Your task to perform on an android device: add a contact in the contacts app Image 0: 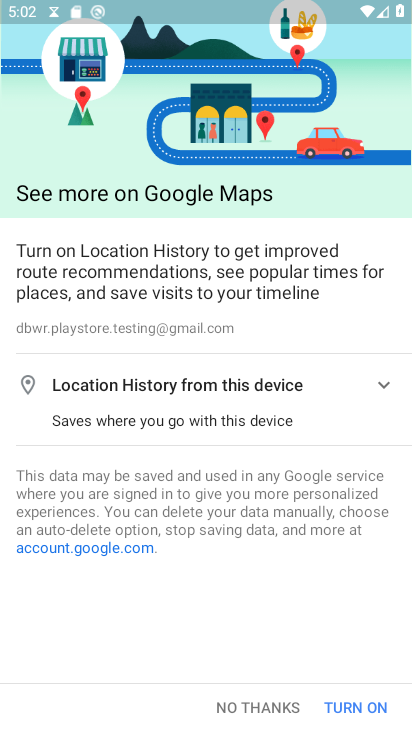
Step 0: press home button
Your task to perform on an android device: add a contact in the contacts app Image 1: 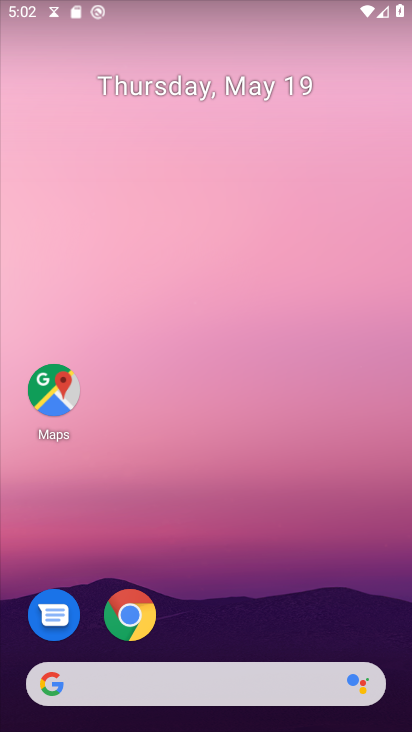
Step 1: drag from (358, 491) to (331, 22)
Your task to perform on an android device: add a contact in the contacts app Image 2: 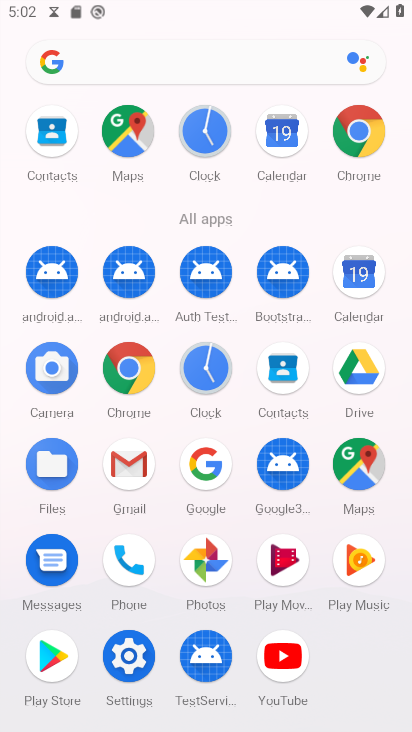
Step 2: click (282, 373)
Your task to perform on an android device: add a contact in the contacts app Image 3: 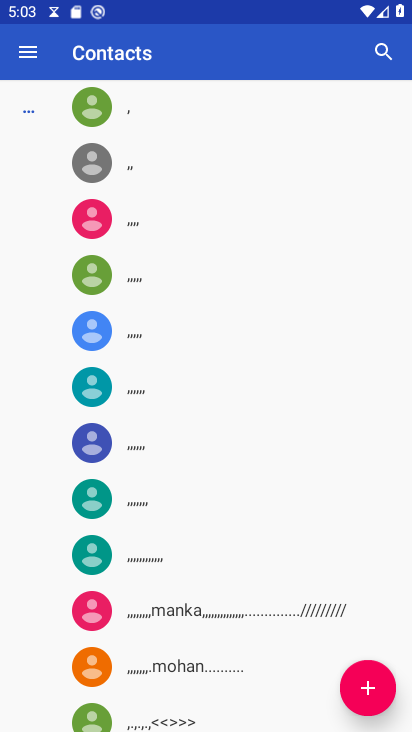
Step 3: click (367, 696)
Your task to perform on an android device: add a contact in the contacts app Image 4: 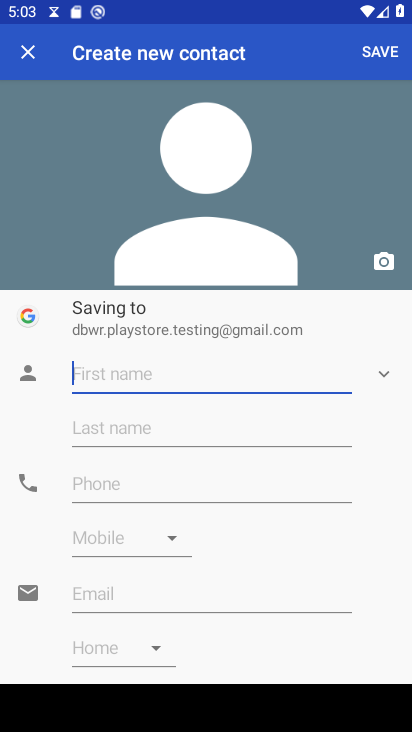
Step 4: type "jhfjfjjh"
Your task to perform on an android device: add a contact in the contacts app Image 5: 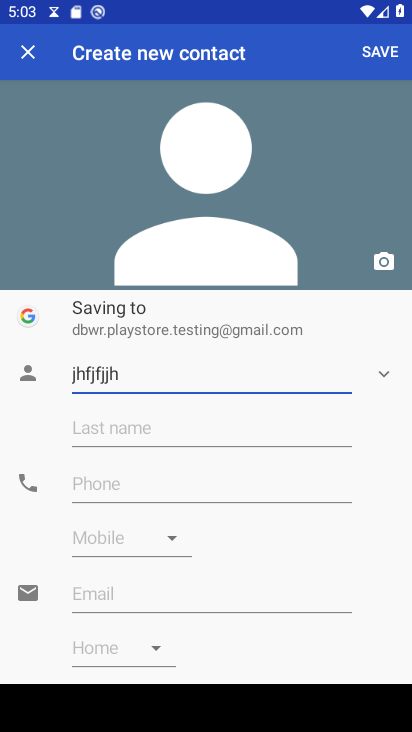
Step 5: click (219, 489)
Your task to perform on an android device: add a contact in the contacts app Image 6: 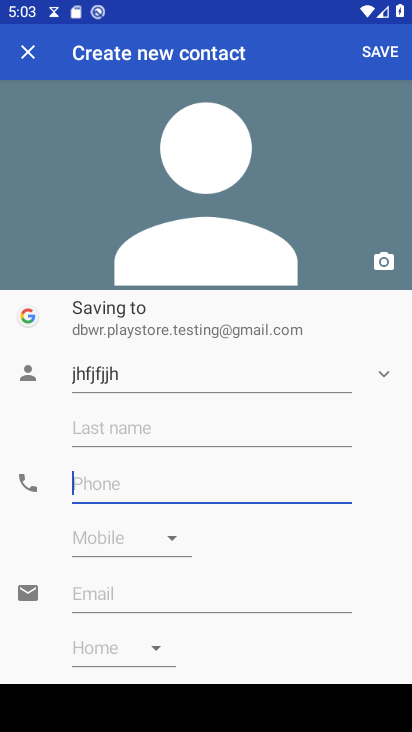
Step 6: type "9878667788"
Your task to perform on an android device: add a contact in the contacts app Image 7: 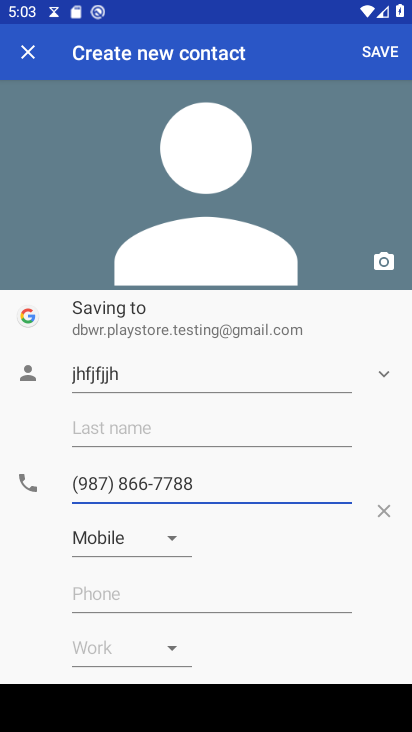
Step 7: click (399, 48)
Your task to perform on an android device: add a contact in the contacts app Image 8: 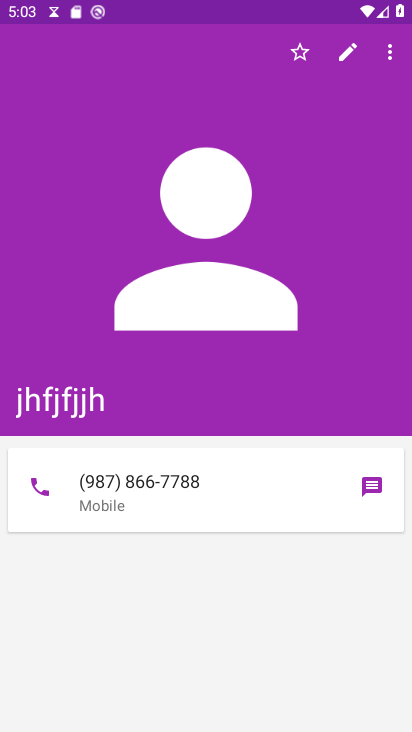
Step 8: task complete